Your task to perform on an android device: find snoozed emails in the gmail app Image 0: 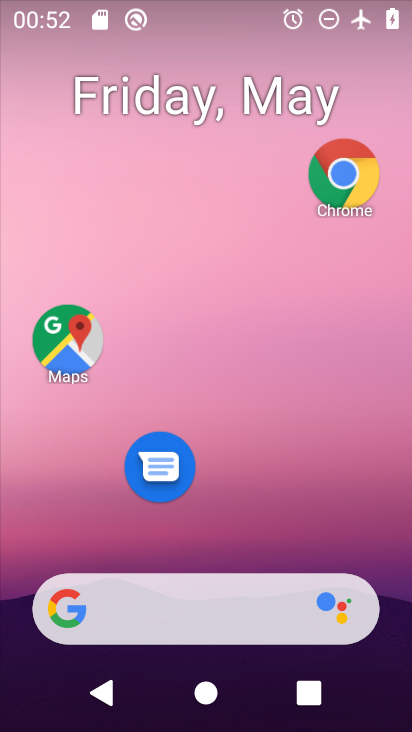
Step 0: drag from (281, 507) to (311, 312)
Your task to perform on an android device: find snoozed emails in the gmail app Image 1: 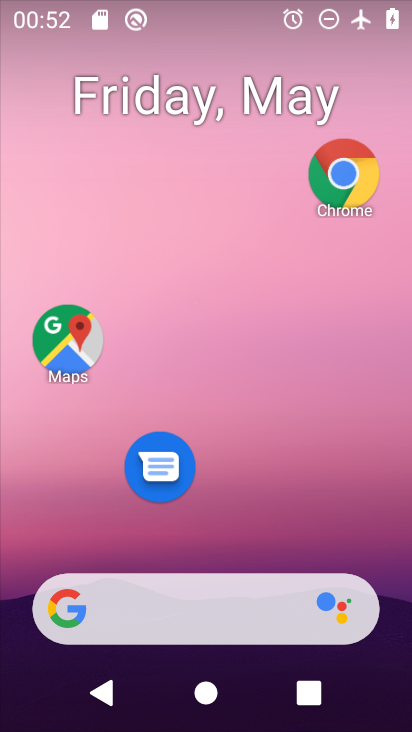
Step 1: drag from (250, 520) to (277, 198)
Your task to perform on an android device: find snoozed emails in the gmail app Image 2: 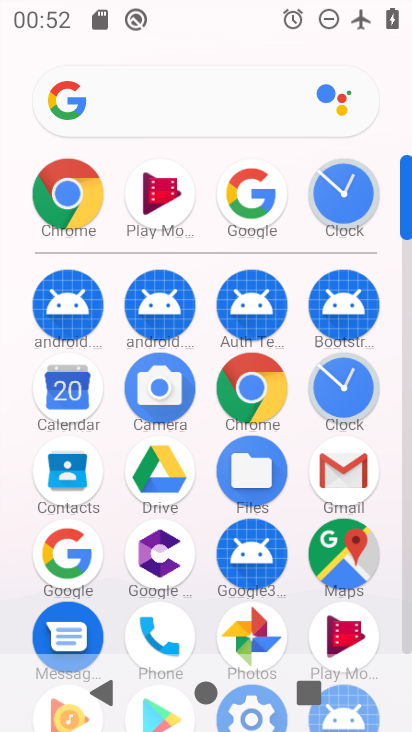
Step 2: click (324, 472)
Your task to perform on an android device: find snoozed emails in the gmail app Image 3: 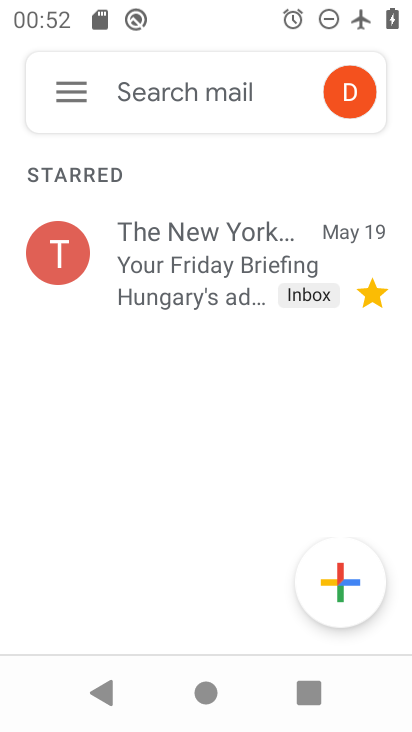
Step 3: click (63, 84)
Your task to perform on an android device: find snoozed emails in the gmail app Image 4: 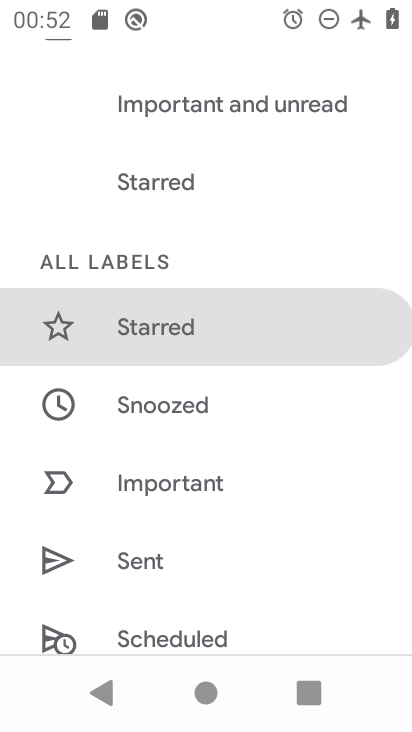
Step 4: drag from (160, 604) to (219, 307)
Your task to perform on an android device: find snoozed emails in the gmail app Image 5: 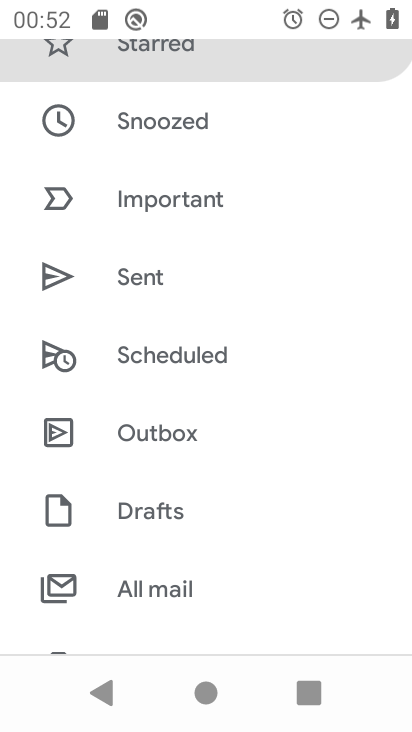
Step 5: click (194, 132)
Your task to perform on an android device: find snoozed emails in the gmail app Image 6: 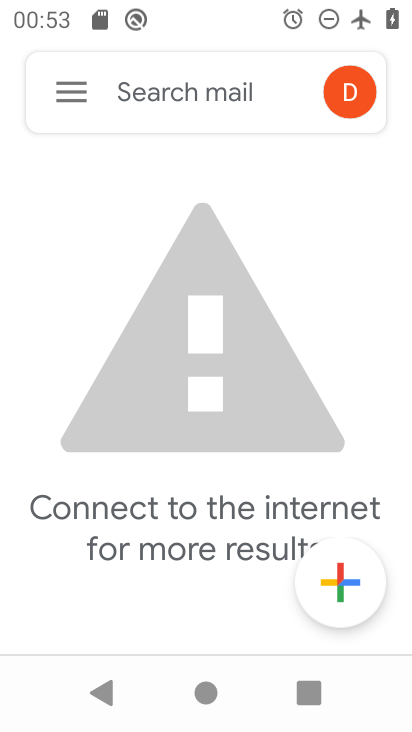
Step 6: click (71, 83)
Your task to perform on an android device: find snoozed emails in the gmail app Image 7: 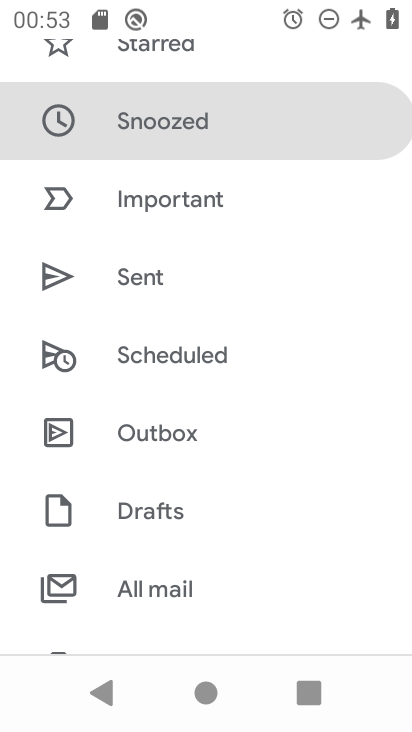
Step 7: click (193, 134)
Your task to perform on an android device: find snoozed emails in the gmail app Image 8: 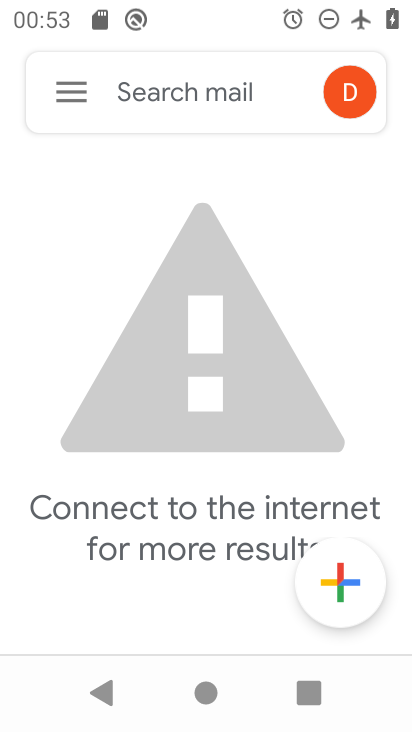
Step 8: task complete